Your task to perform on an android device: Is it going to rain this weekend? Image 0: 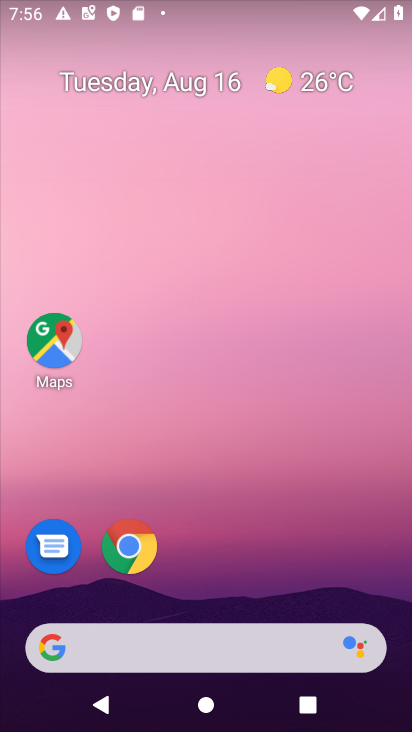
Step 0: click (173, 647)
Your task to perform on an android device: Is it going to rain this weekend? Image 1: 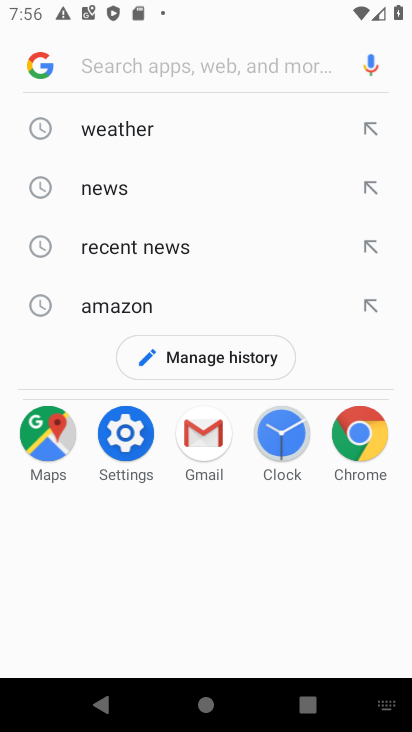
Step 1: click (103, 132)
Your task to perform on an android device: Is it going to rain this weekend? Image 2: 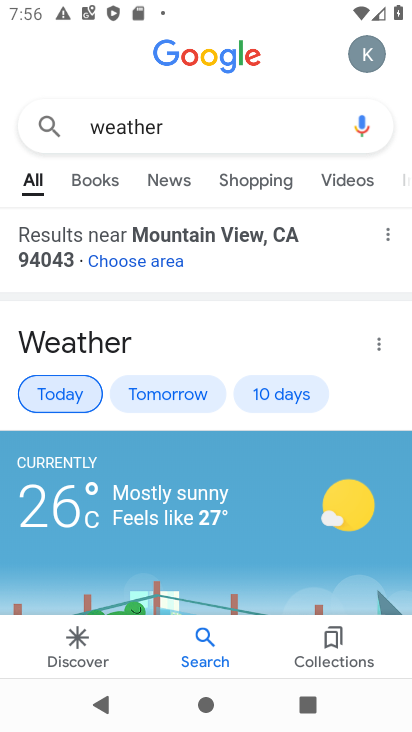
Step 2: click (278, 404)
Your task to perform on an android device: Is it going to rain this weekend? Image 3: 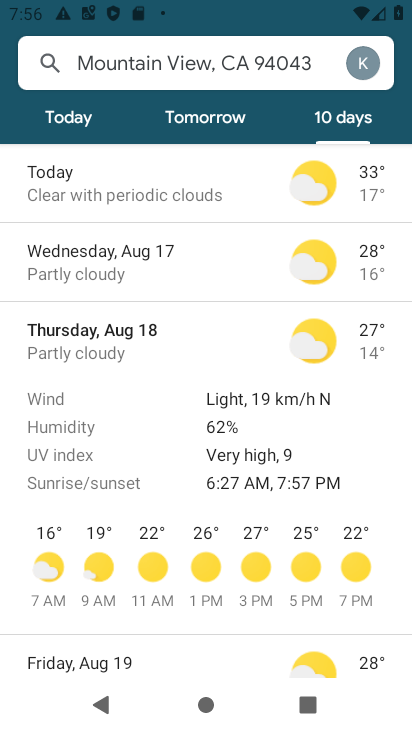
Step 3: task complete